Your task to perform on an android device: change alarm snooze length Image 0: 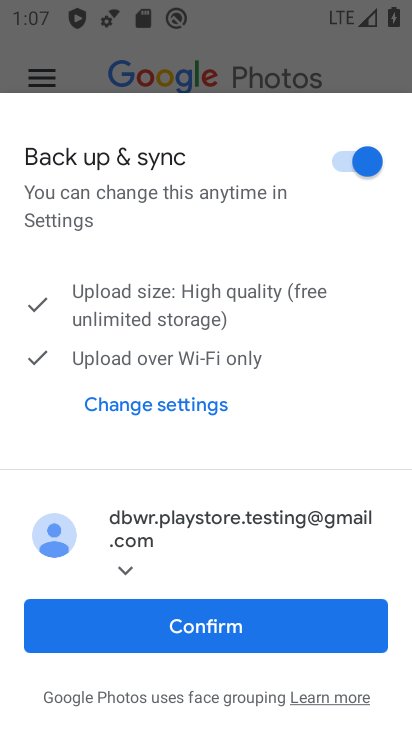
Step 0: press home button
Your task to perform on an android device: change alarm snooze length Image 1: 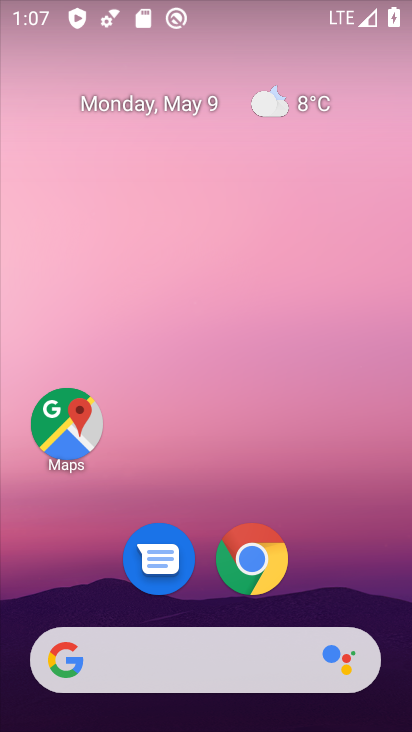
Step 1: drag from (377, 515) to (253, 110)
Your task to perform on an android device: change alarm snooze length Image 2: 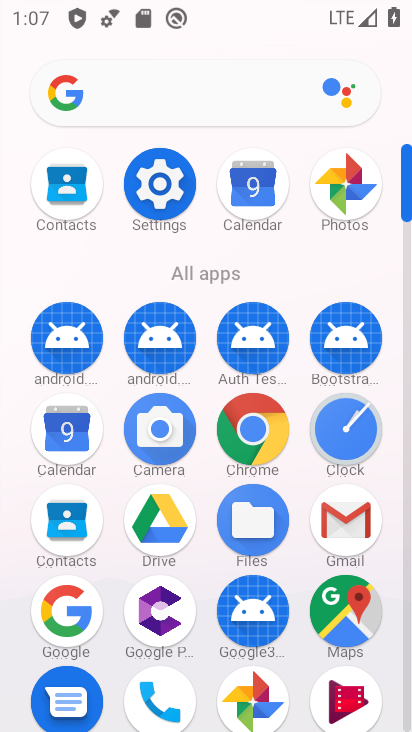
Step 2: click (340, 428)
Your task to perform on an android device: change alarm snooze length Image 3: 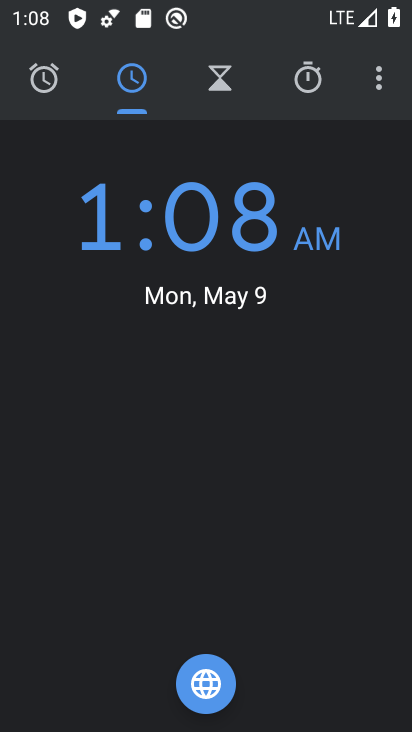
Step 3: click (380, 81)
Your task to perform on an android device: change alarm snooze length Image 4: 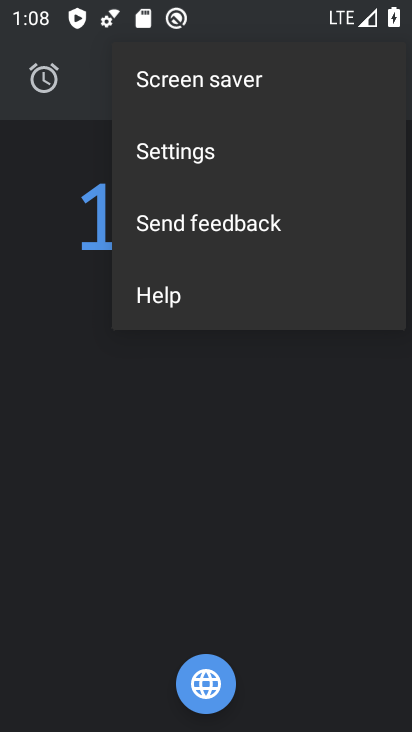
Step 4: click (184, 156)
Your task to perform on an android device: change alarm snooze length Image 5: 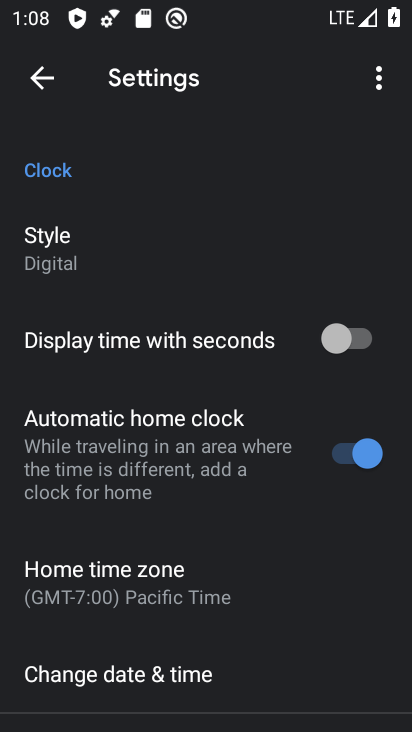
Step 5: drag from (254, 549) to (195, 212)
Your task to perform on an android device: change alarm snooze length Image 6: 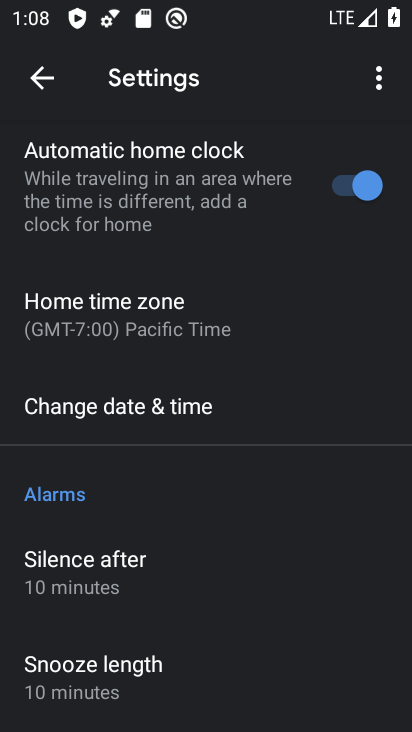
Step 6: click (96, 667)
Your task to perform on an android device: change alarm snooze length Image 7: 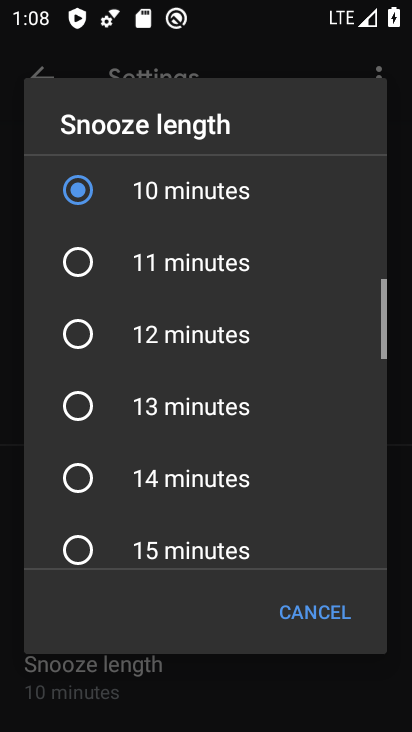
Step 7: click (83, 409)
Your task to perform on an android device: change alarm snooze length Image 8: 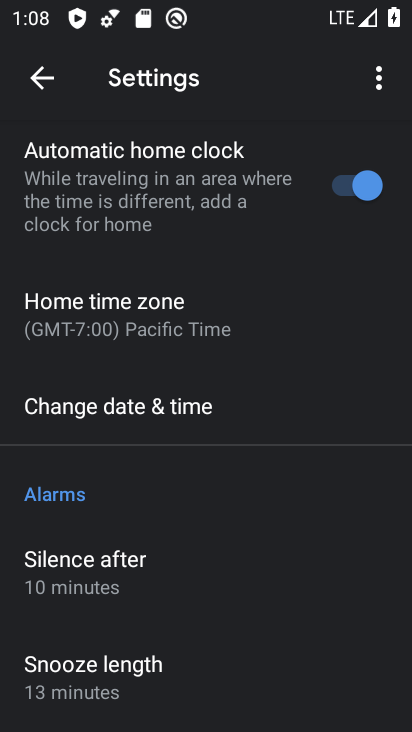
Step 8: task complete